Your task to perform on an android device: What is the recent news? Image 0: 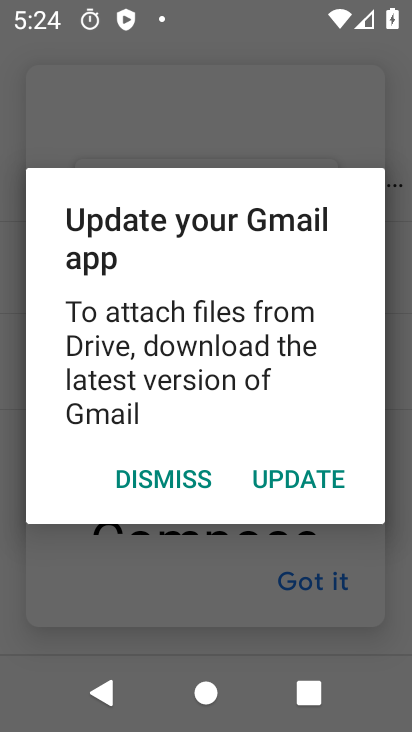
Step 0: press home button
Your task to perform on an android device: What is the recent news? Image 1: 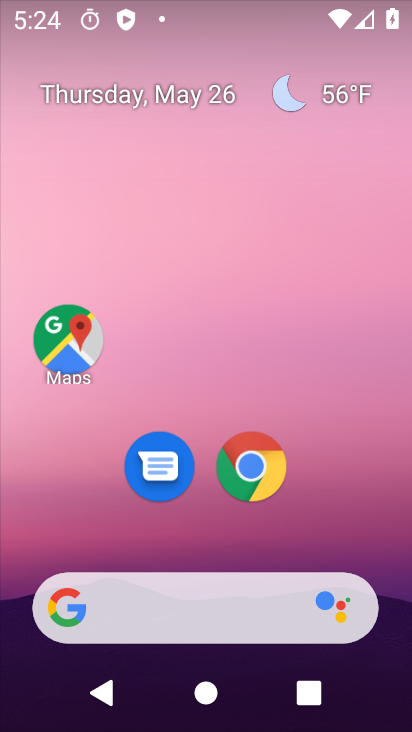
Step 1: click (266, 469)
Your task to perform on an android device: What is the recent news? Image 2: 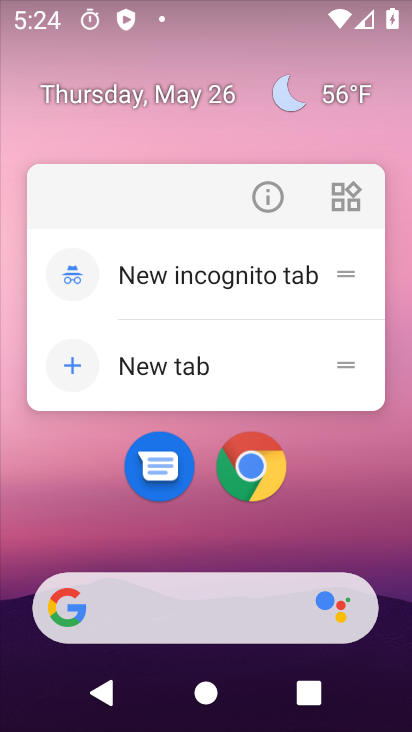
Step 2: click (334, 460)
Your task to perform on an android device: What is the recent news? Image 3: 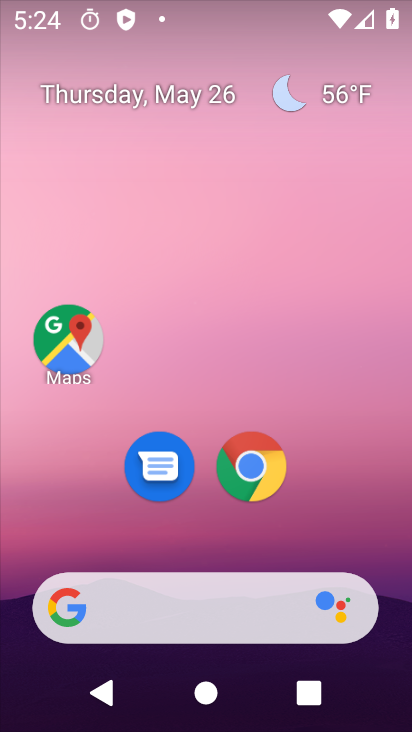
Step 3: drag from (327, 512) to (295, 73)
Your task to perform on an android device: What is the recent news? Image 4: 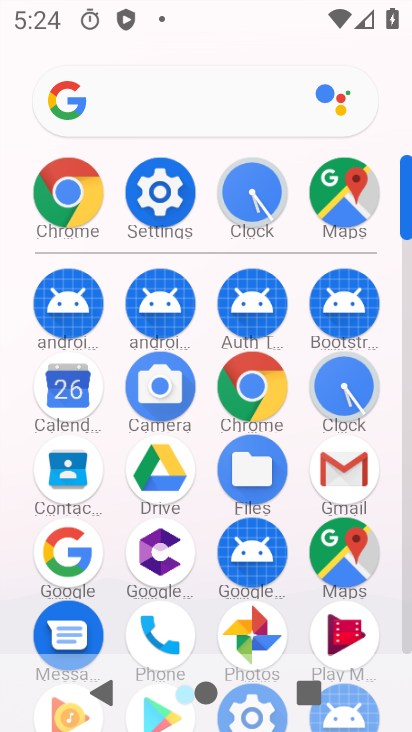
Step 4: click (250, 385)
Your task to perform on an android device: What is the recent news? Image 5: 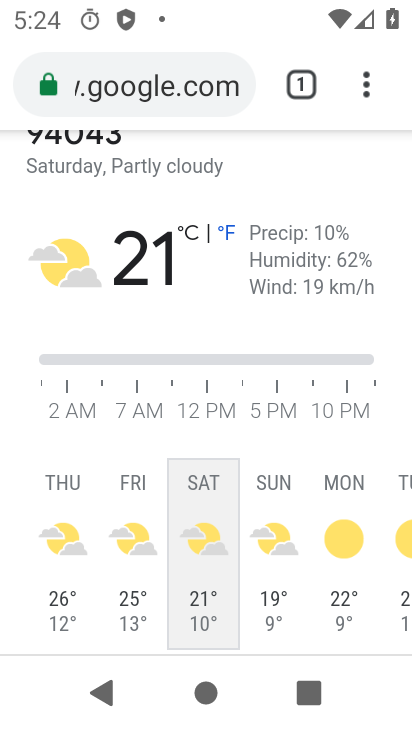
Step 5: click (168, 82)
Your task to perform on an android device: What is the recent news? Image 6: 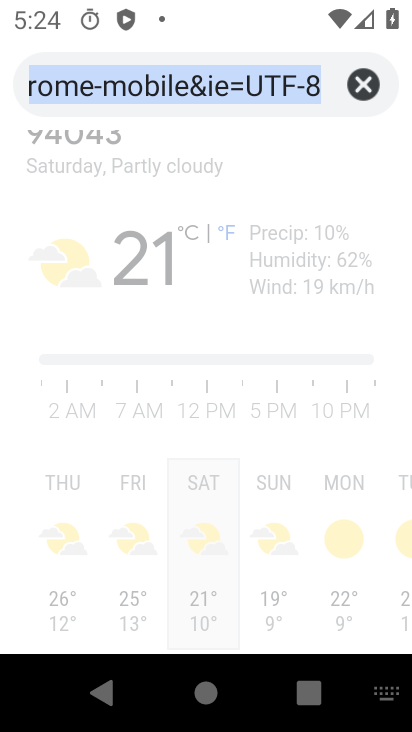
Step 6: click (353, 80)
Your task to perform on an android device: What is the recent news? Image 7: 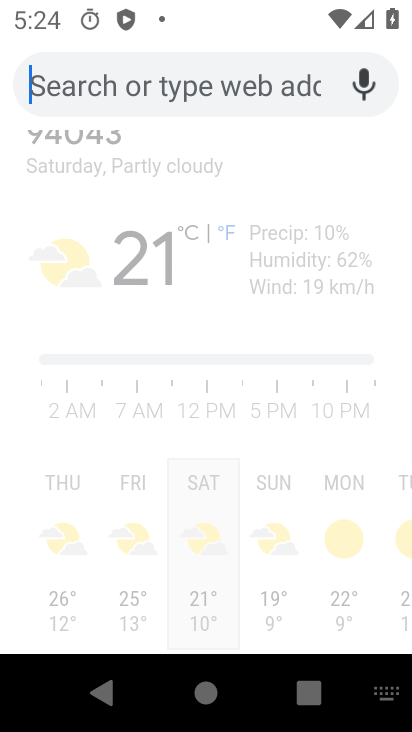
Step 7: type "What is the recent news?"
Your task to perform on an android device: What is the recent news? Image 8: 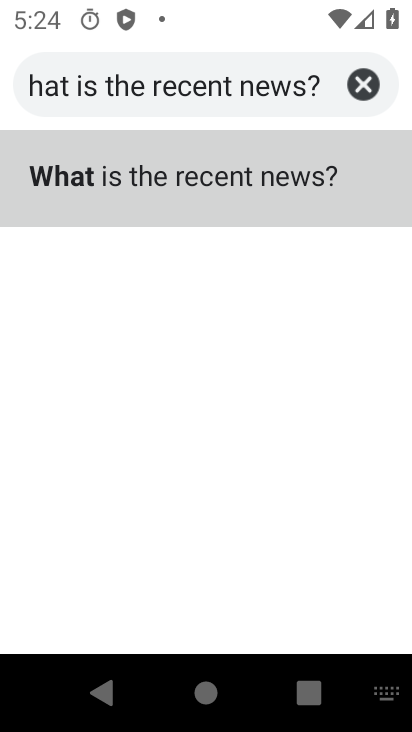
Step 8: click (170, 170)
Your task to perform on an android device: What is the recent news? Image 9: 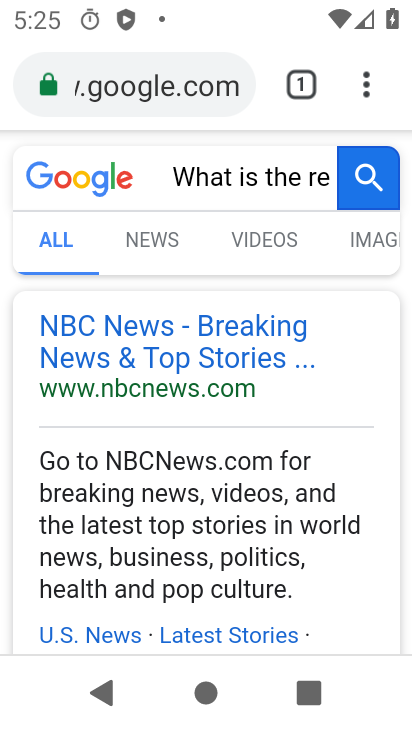
Step 9: drag from (250, 528) to (229, 340)
Your task to perform on an android device: What is the recent news? Image 10: 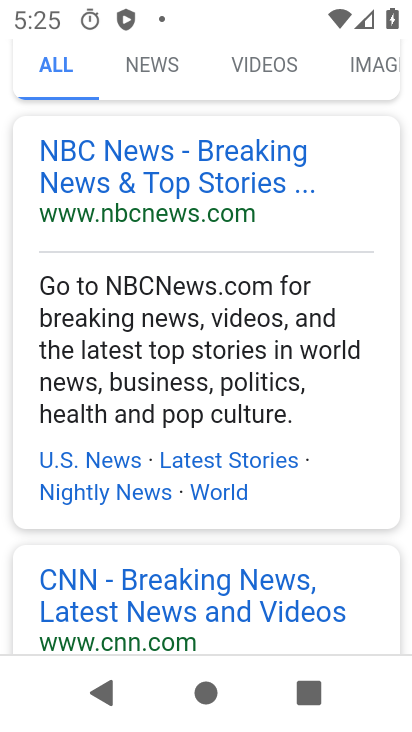
Step 10: click (145, 72)
Your task to perform on an android device: What is the recent news? Image 11: 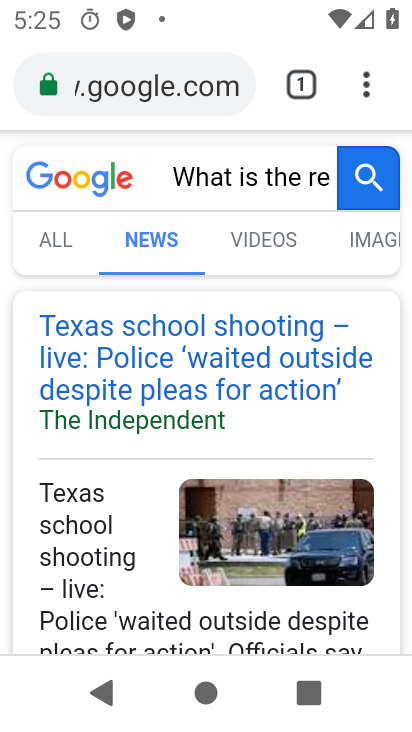
Step 11: task complete